Your task to perform on an android device: Play the last video I watched on Youtube Image 0: 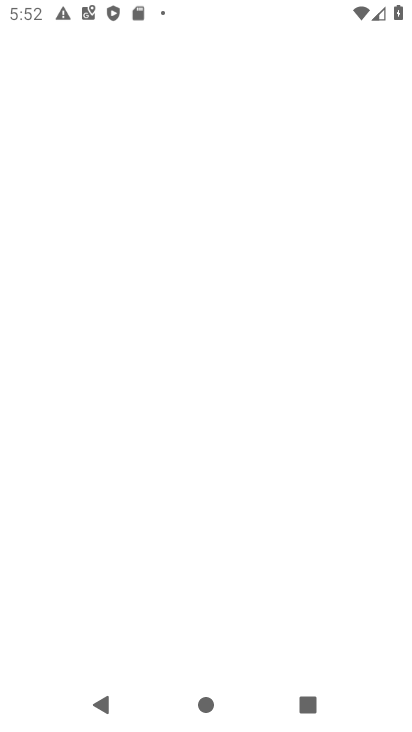
Step 0: press home button
Your task to perform on an android device: Play the last video I watched on Youtube Image 1: 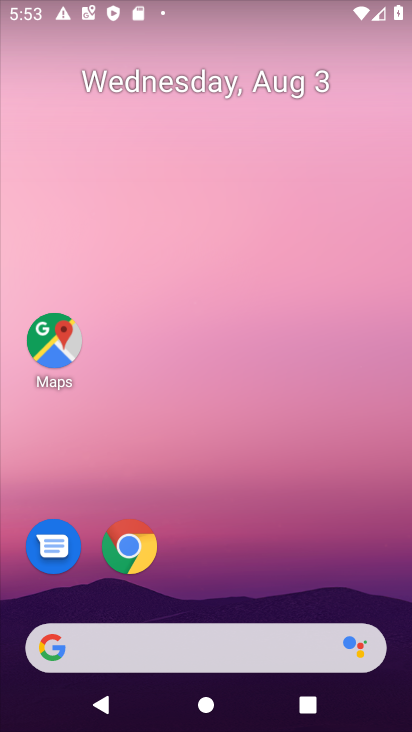
Step 1: drag from (295, 606) to (400, 120)
Your task to perform on an android device: Play the last video I watched on Youtube Image 2: 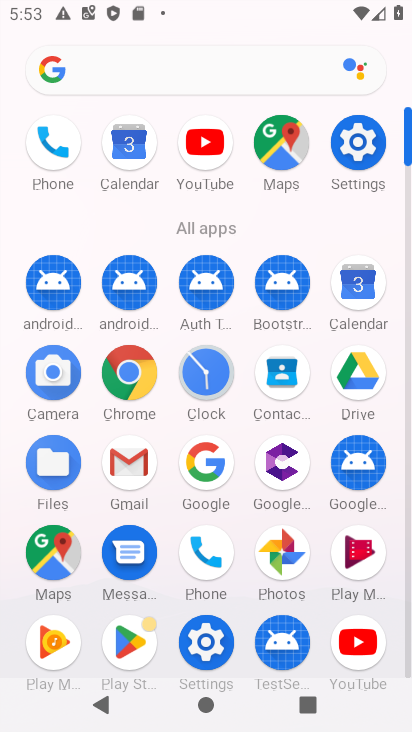
Step 2: click (360, 650)
Your task to perform on an android device: Play the last video I watched on Youtube Image 3: 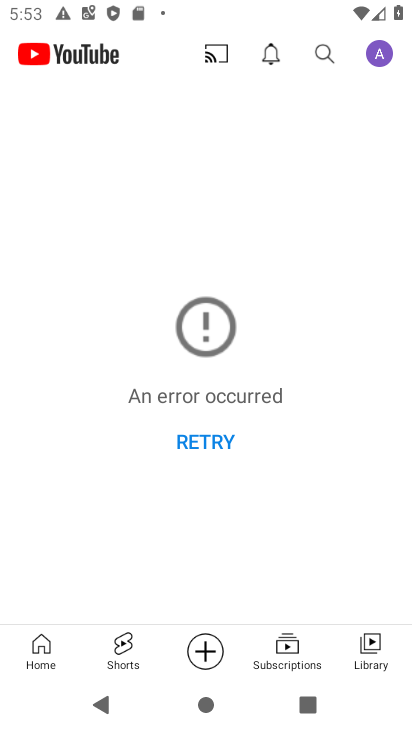
Step 3: click (375, 644)
Your task to perform on an android device: Play the last video I watched on Youtube Image 4: 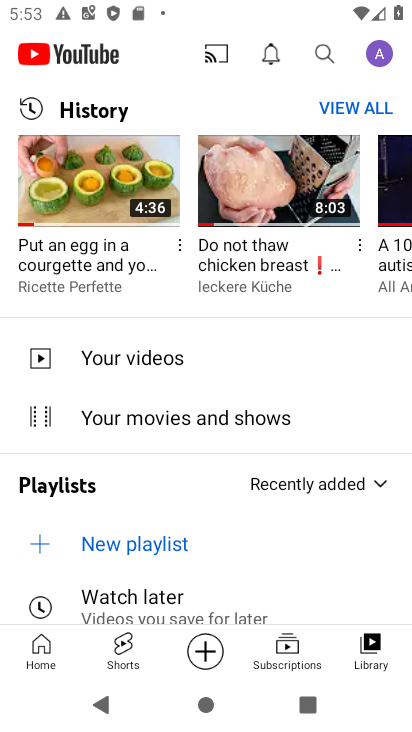
Step 4: click (118, 174)
Your task to perform on an android device: Play the last video I watched on Youtube Image 5: 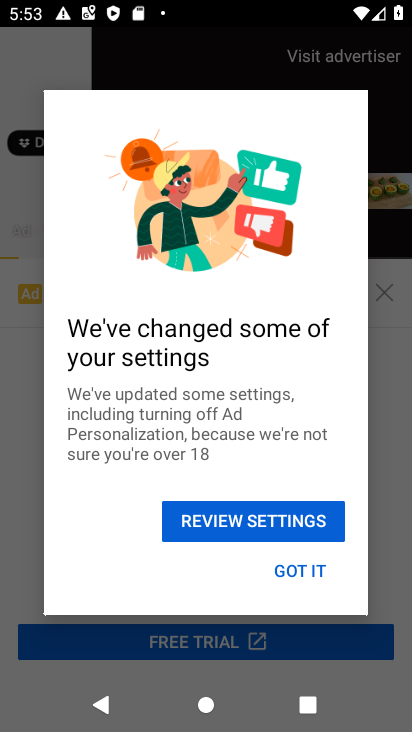
Step 5: click (294, 573)
Your task to perform on an android device: Play the last video I watched on Youtube Image 6: 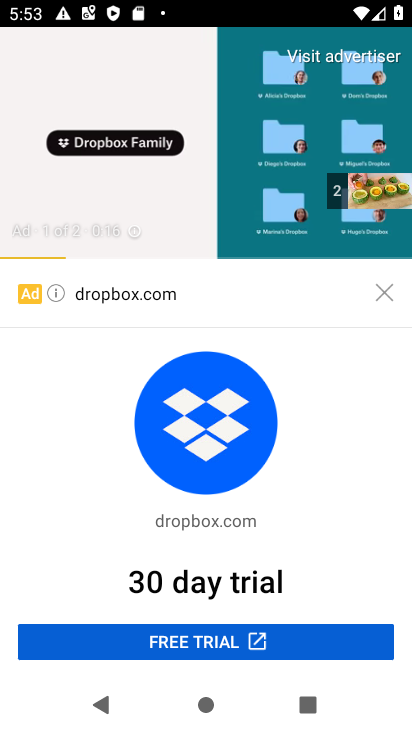
Step 6: click (390, 292)
Your task to perform on an android device: Play the last video I watched on Youtube Image 7: 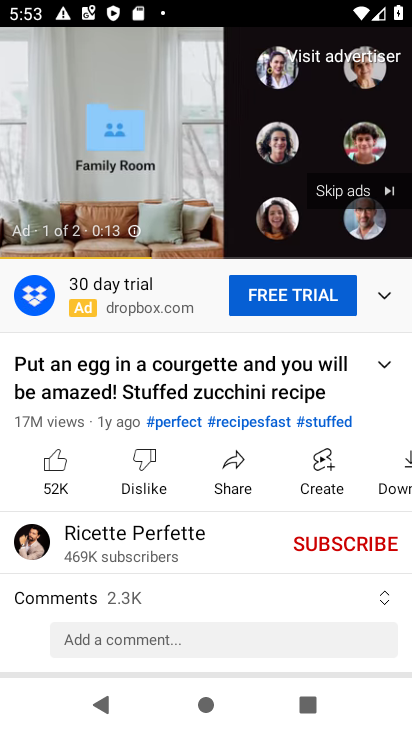
Step 7: click (343, 195)
Your task to perform on an android device: Play the last video I watched on Youtube Image 8: 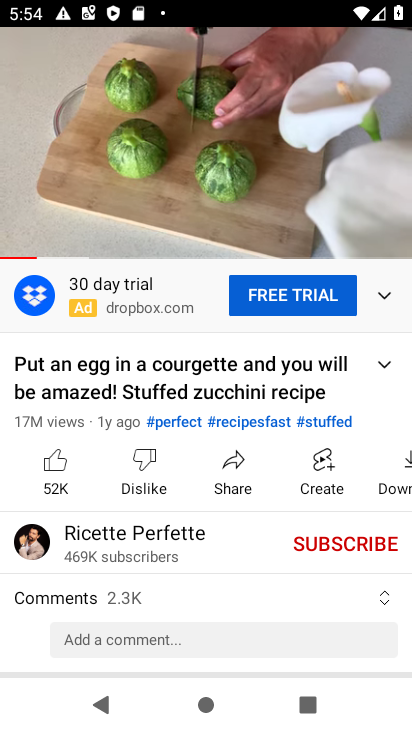
Step 8: task complete